Your task to perform on an android device: all mails in gmail Image 0: 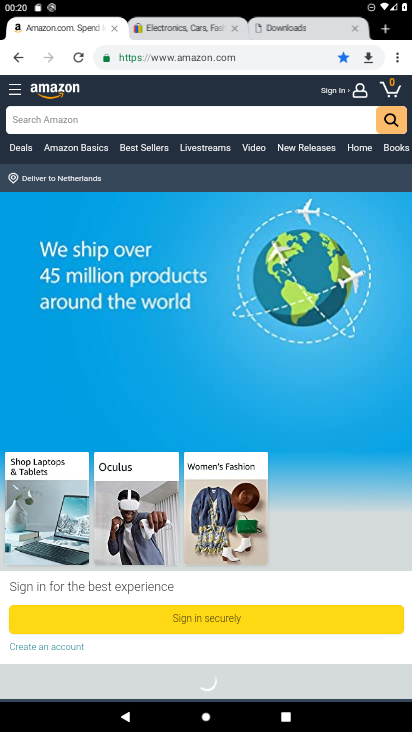
Step 0: press home button
Your task to perform on an android device: all mails in gmail Image 1: 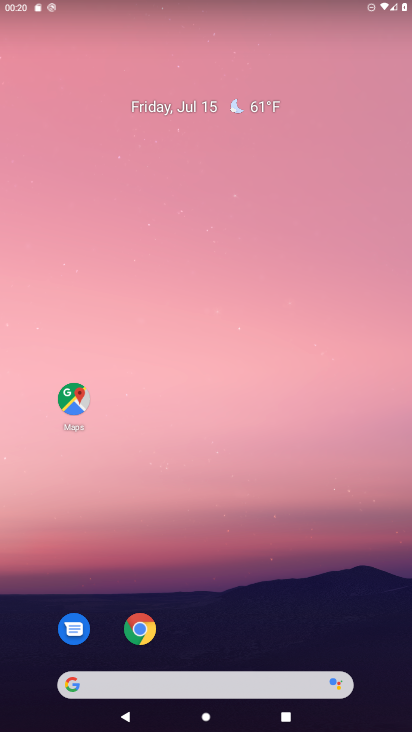
Step 1: drag from (213, 651) to (175, 14)
Your task to perform on an android device: all mails in gmail Image 2: 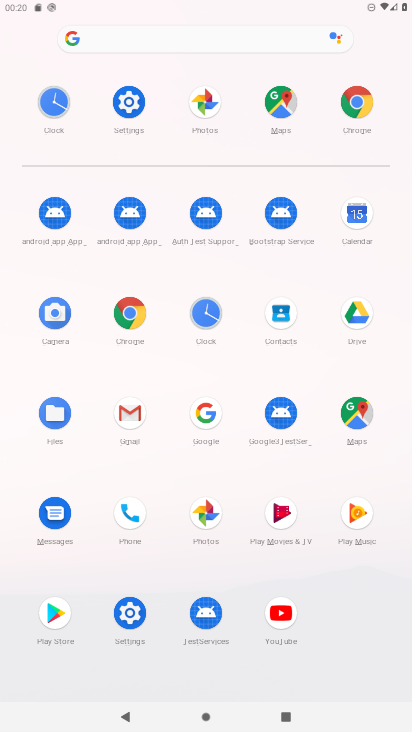
Step 2: click (132, 412)
Your task to perform on an android device: all mails in gmail Image 3: 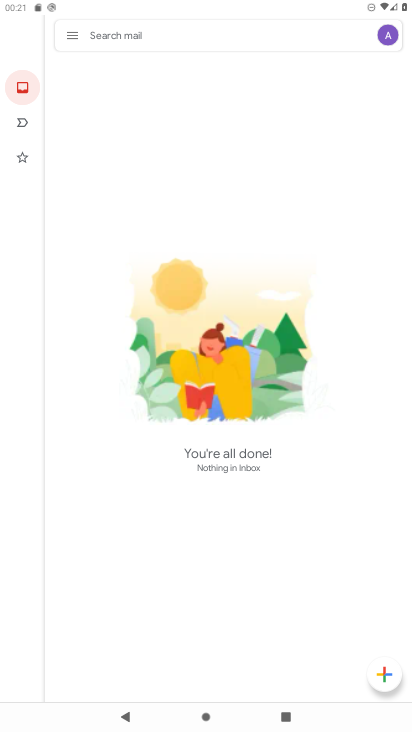
Step 3: click (62, 27)
Your task to perform on an android device: all mails in gmail Image 4: 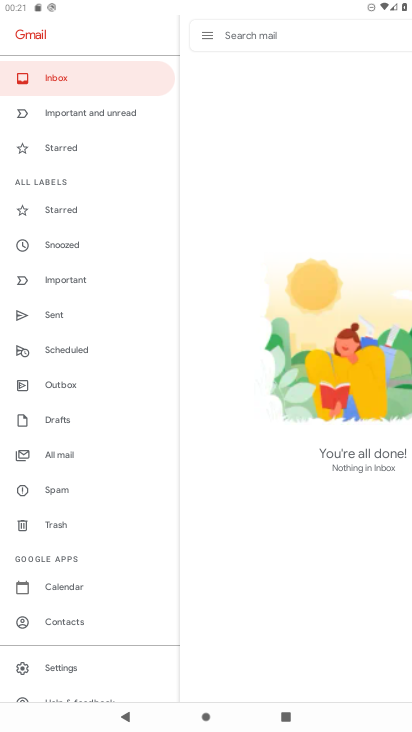
Step 4: click (89, 455)
Your task to perform on an android device: all mails in gmail Image 5: 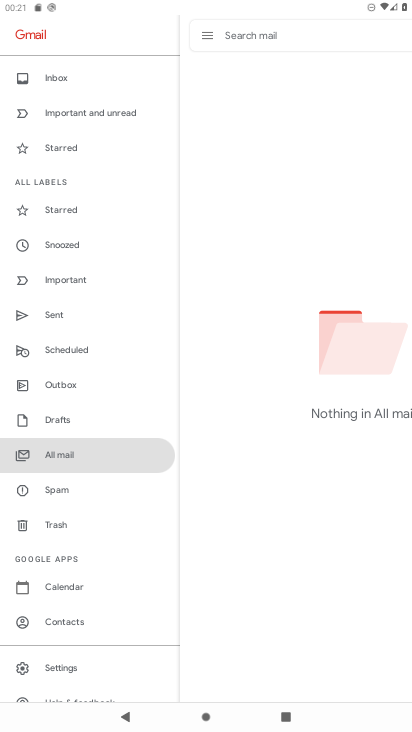
Step 5: task complete